Your task to perform on an android device: turn on translation in the chrome app Image 0: 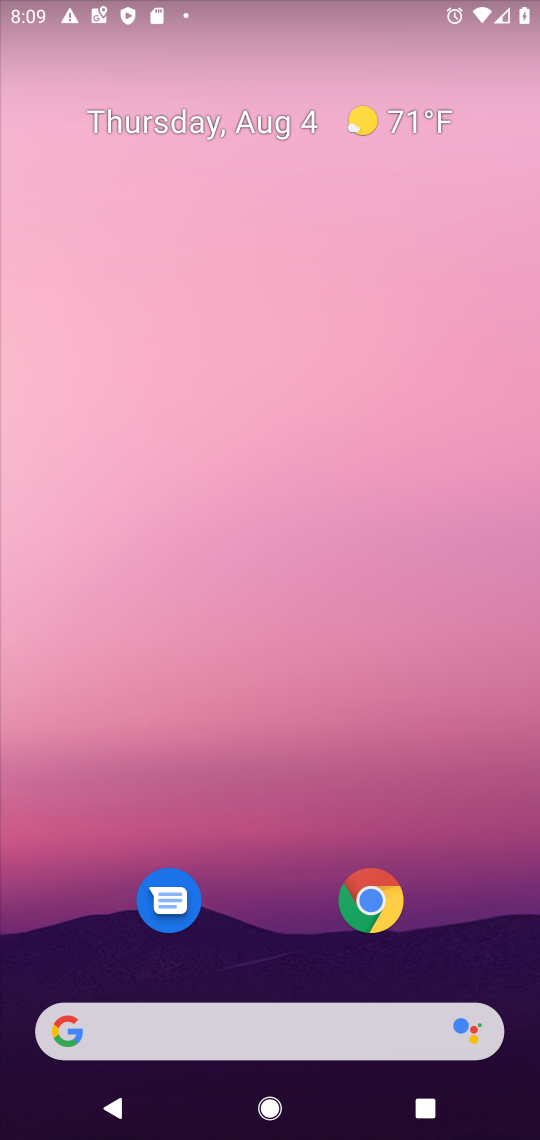
Step 0: click (368, 907)
Your task to perform on an android device: turn on translation in the chrome app Image 1: 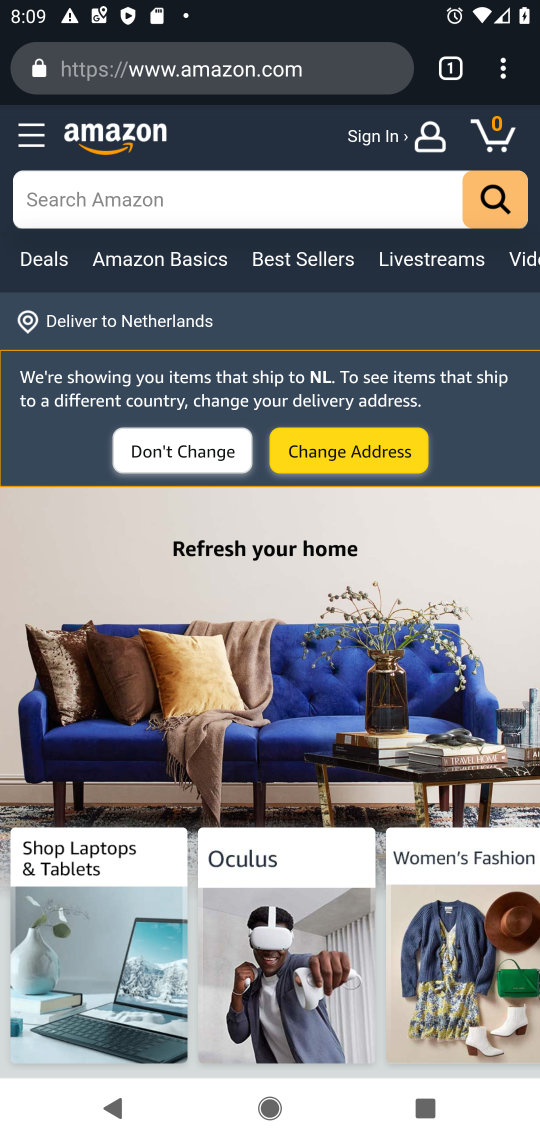
Step 1: click (502, 68)
Your task to perform on an android device: turn on translation in the chrome app Image 2: 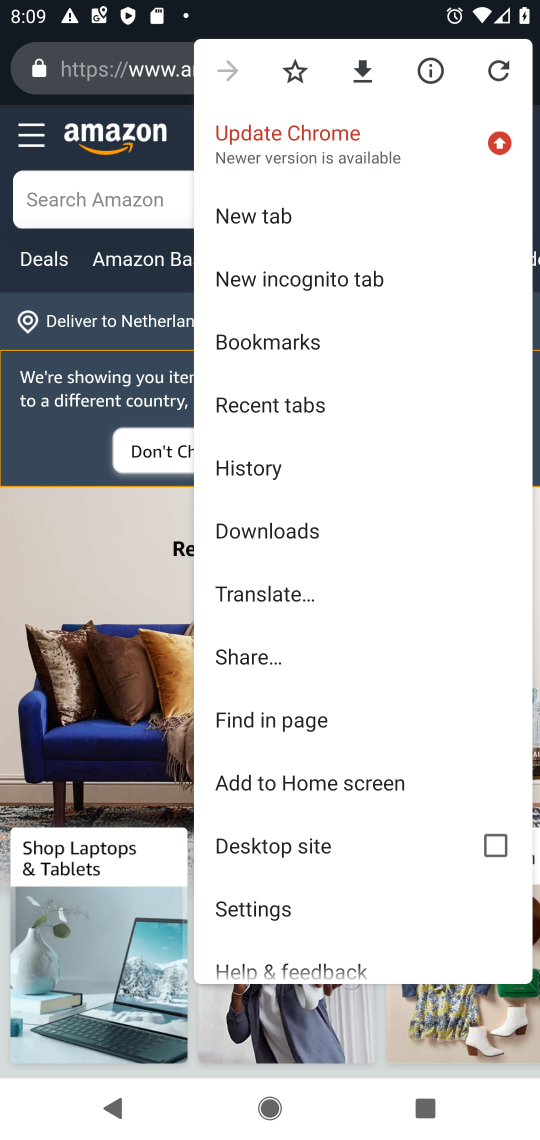
Step 2: click (279, 909)
Your task to perform on an android device: turn on translation in the chrome app Image 3: 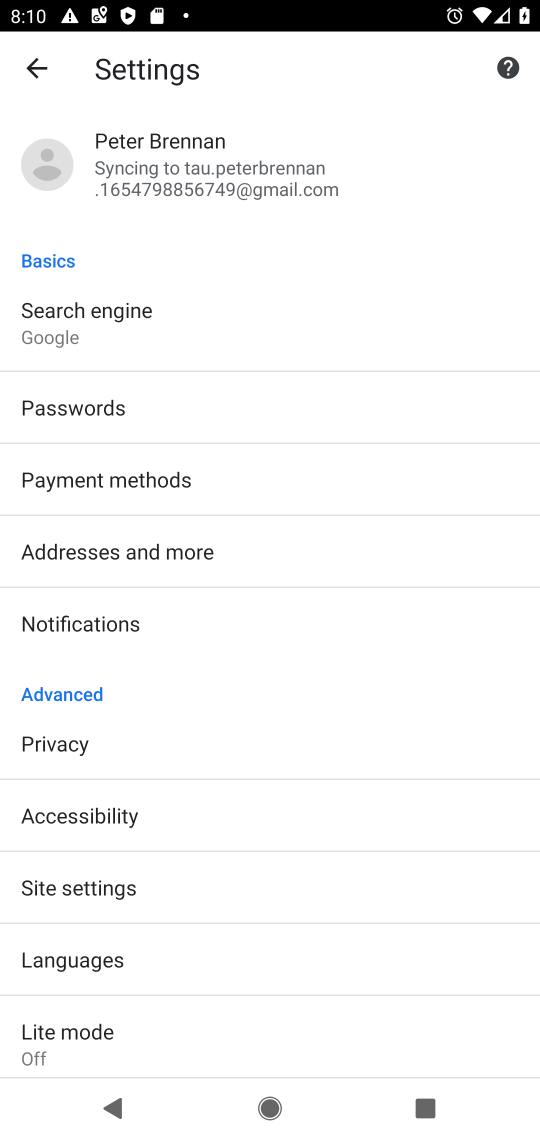
Step 3: click (90, 959)
Your task to perform on an android device: turn on translation in the chrome app Image 4: 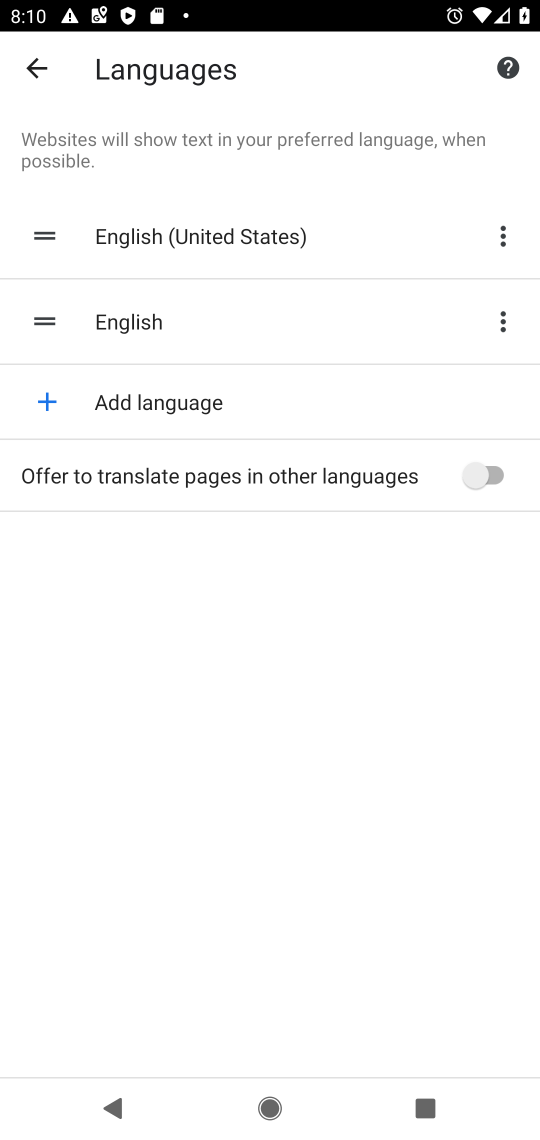
Step 4: click (482, 481)
Your task to perform on an android device: turn on translation in the chrome app Image 5: 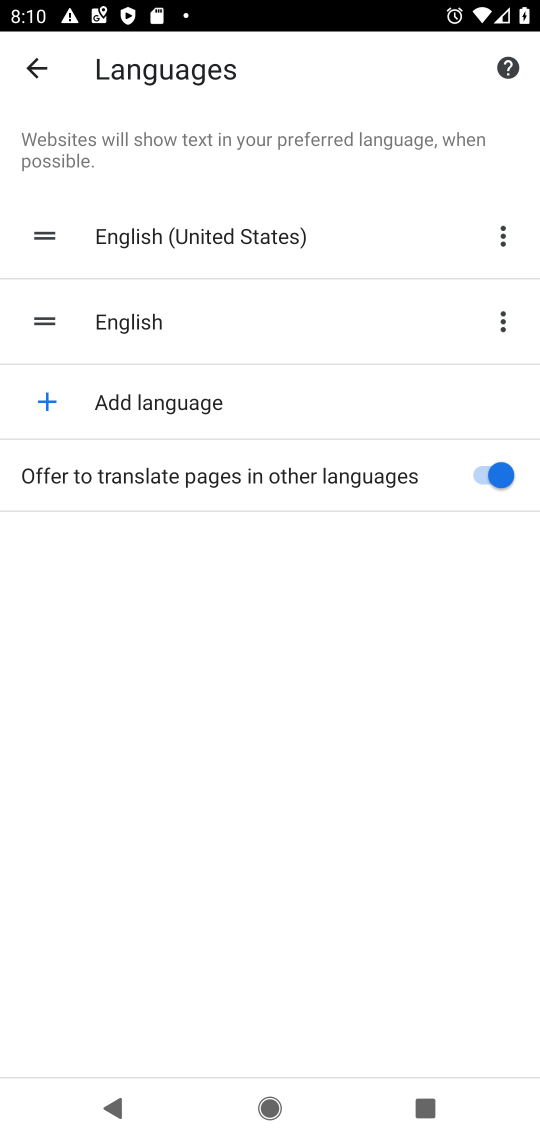
Step 5: task complete